Your task to perform on an android device: Go to CNN.com Image 0: 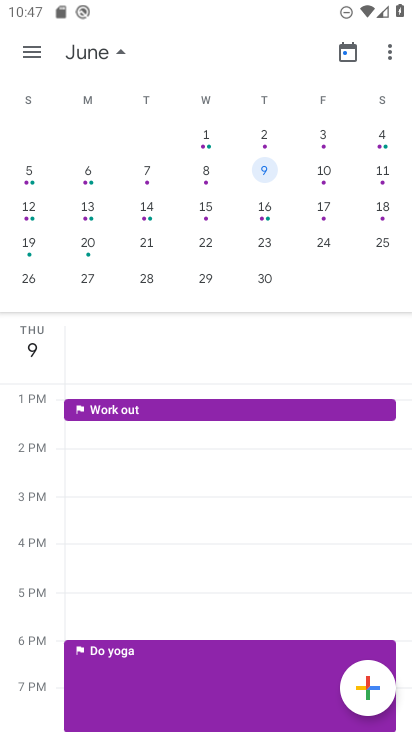
Step 0: drag from (261, 617) to (320, 335)
Your task to perform on an android device: Go to CNN.com Image 1: 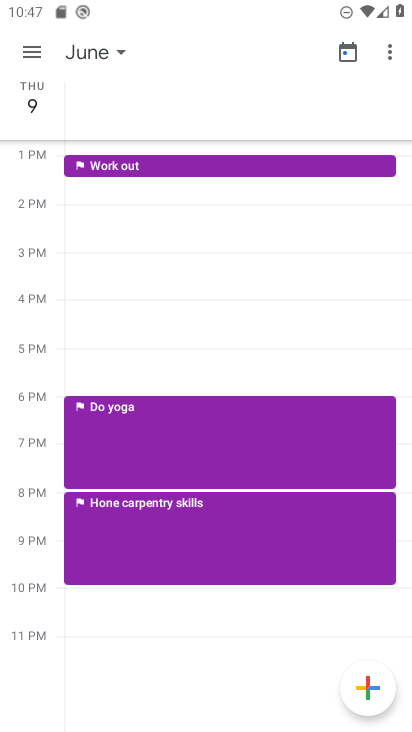
Step 1: drag from (157, 548) to (294, 265)
Your task to perform on an android device: Go to CNN.com Image 2: 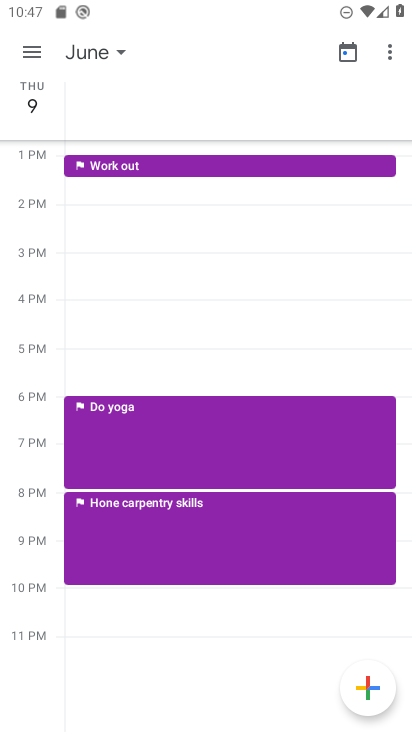
Step 2: drag from (209, 570) to (272, 111)
Your task to perform on an android device: Go to CNN.com Image 3: 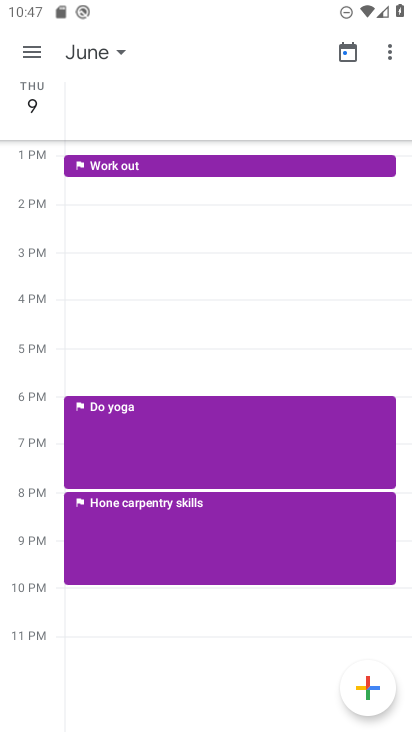
Step 3: drag from (248, 248) to (275, 574)
Your task to perform on an android device: Go to CNN.com Image 4: 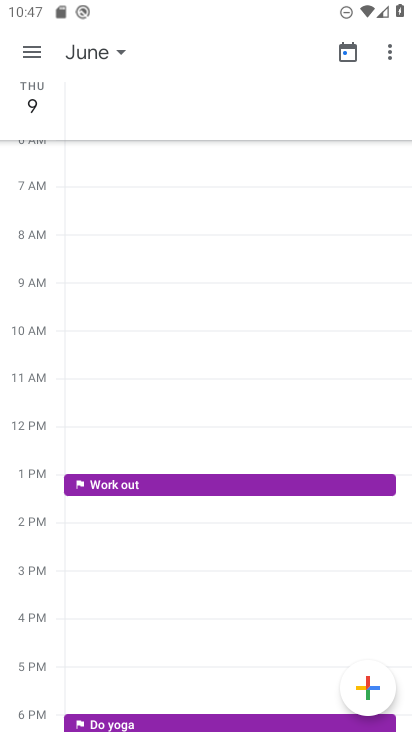
Step 4: press home button
Your task to perform on an android device: Go to CNN.com Image 5: 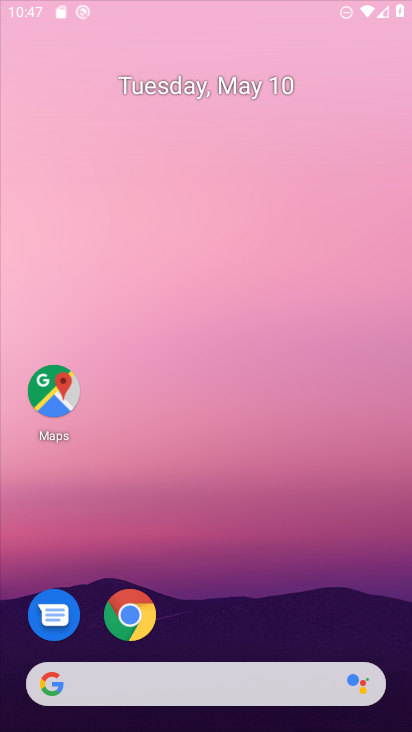
Step 5: drag from (147, 583) to (244, 141)
Your task to perform on an android device: Go to CNN.com Image 6: 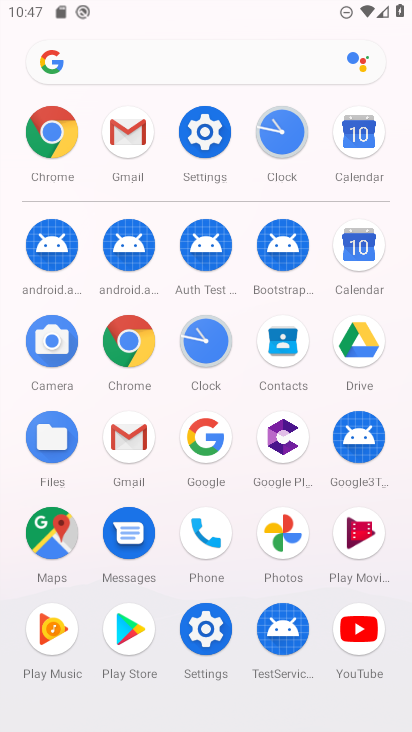
Step 6: click (186, 67)
Your task to perform on an android device: Go to CNN.com Image 7: 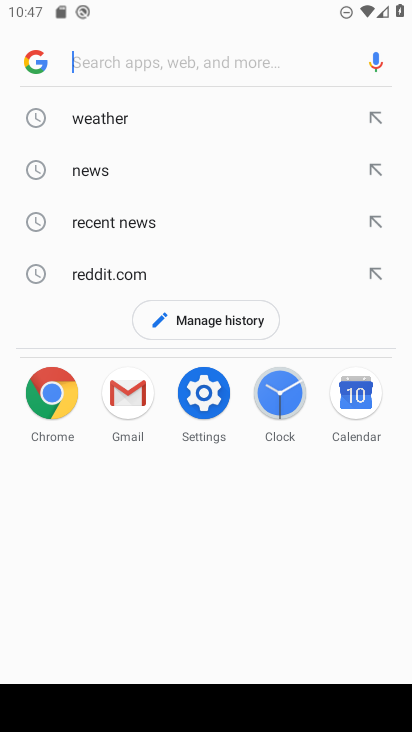
Step 7: type "cnn"
Your task to perform on an android device: Go to CNN.com Image 8: 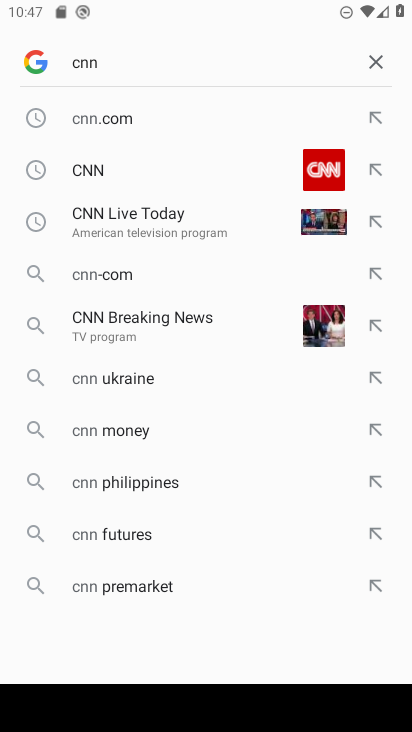
Step 8: click (171, 115)
Your task to perform on an android device: Go to CNN.com Image 9: 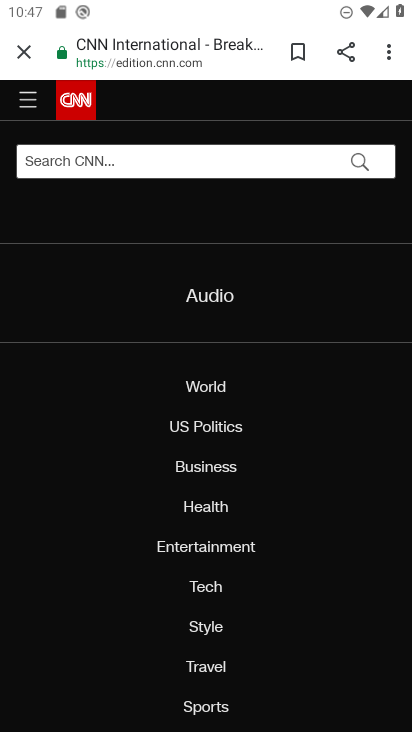
Step 9: task complete